Your task to perform on an android device: read, delete, or share a saved page in the chrome app Image 0: 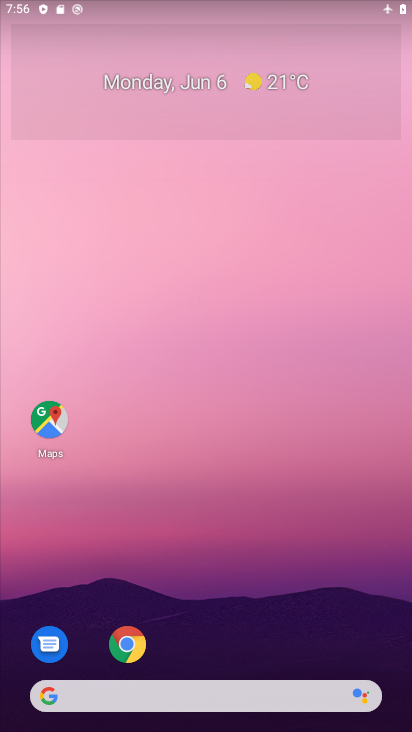
Step 0: drag from (215, 670) to (371, 4)
Your task to perform on an android device: read, delete, or share a saved page in the chrome app Image 1: 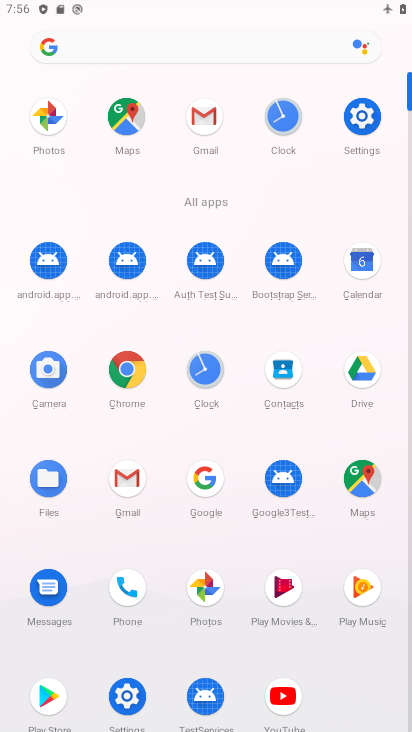
Step 1: click (125, 362)
Your task to perform on an android device: read, delete, or share a saved page in the chrome app Image 2: 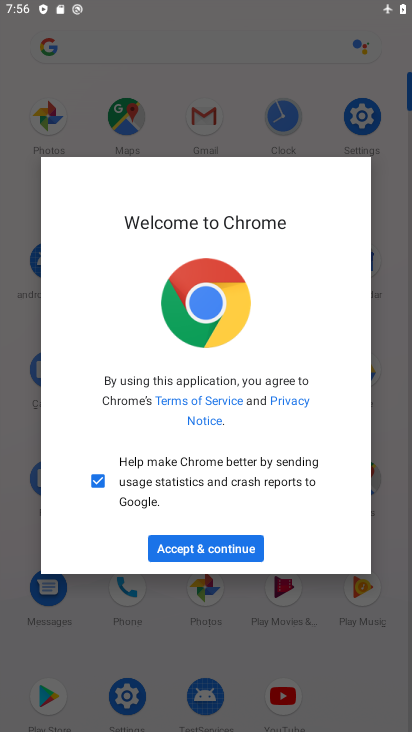
Step 2: click (215, 543)
Your task to perform on an android device: read, delete, or share a saved page in the chrome app Image 3: 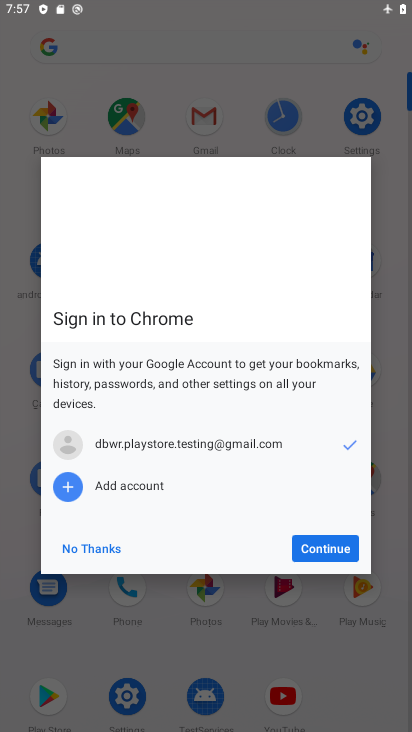
Step 3: click (323, 537)
Your task to perform on an android device: read, delete, or share a saved page in the chrome app Image 4: 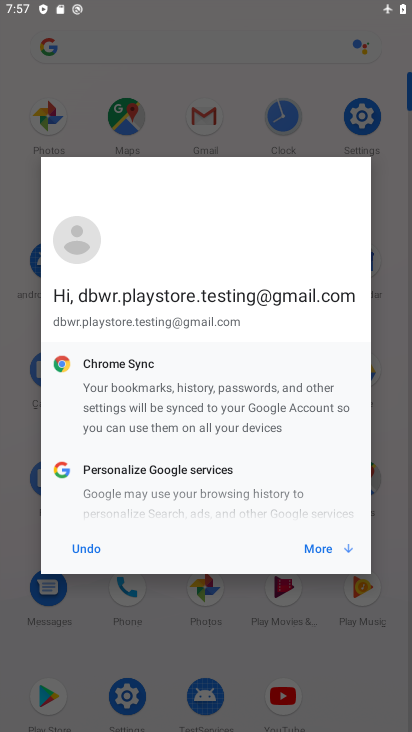
Step 4: click (317, 547)
Your task to perform on an android device: read, delete, or share a saved page in the chrome app Image 5: 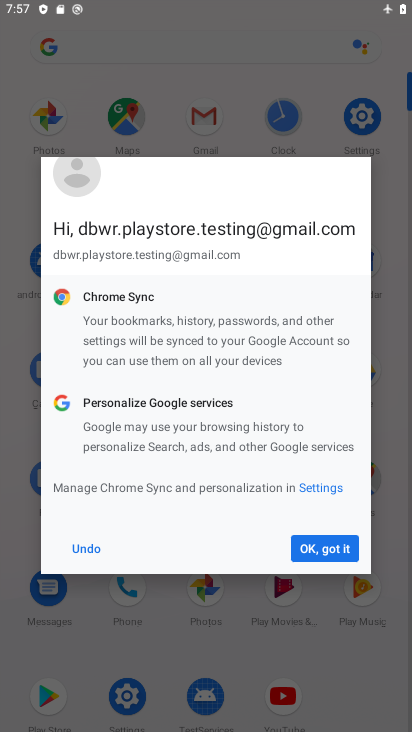
Step 5: click (338, 557)
Your task to perform on an android device: read, delete, or share a saved page in the chrome app Image 6: 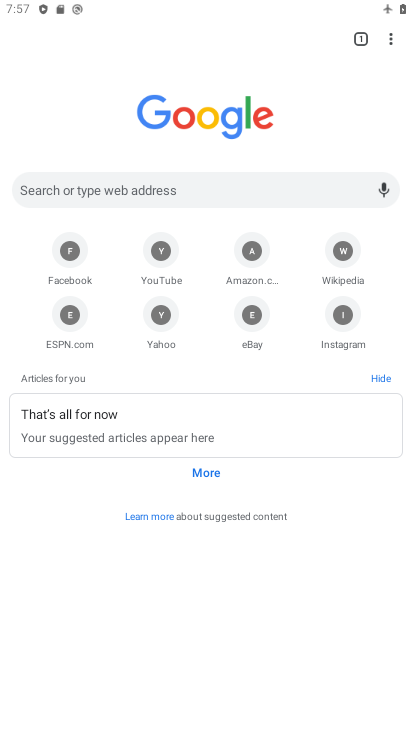
Step 6: click (388, 37)
Your task to perform on an android device: read, delete, or share a saved page in the chrome app Image 7: 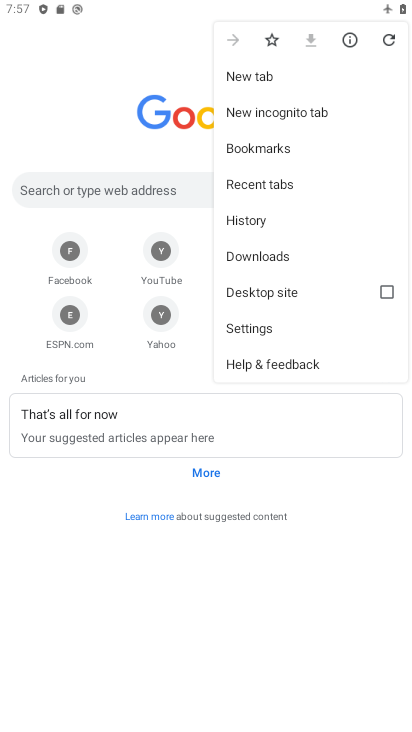
Step 7: click (253, 261)
Your task to perform on an android device: read, delete, or share a saved page in the chrome app Image 8: 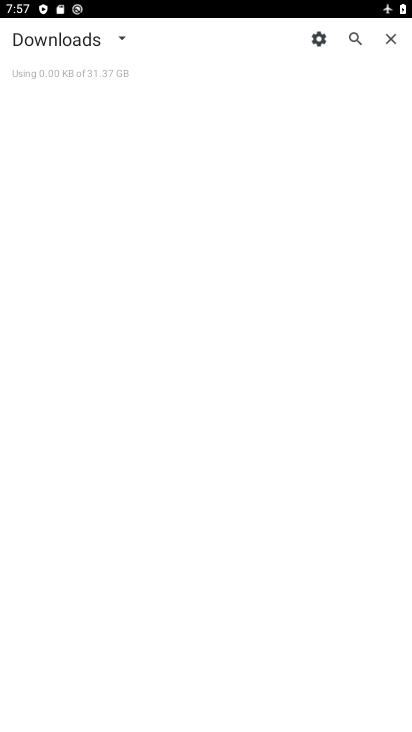
Step 8: task complete